Your task to perform on an android device: Open Chrome and go to the settings page Image 0: 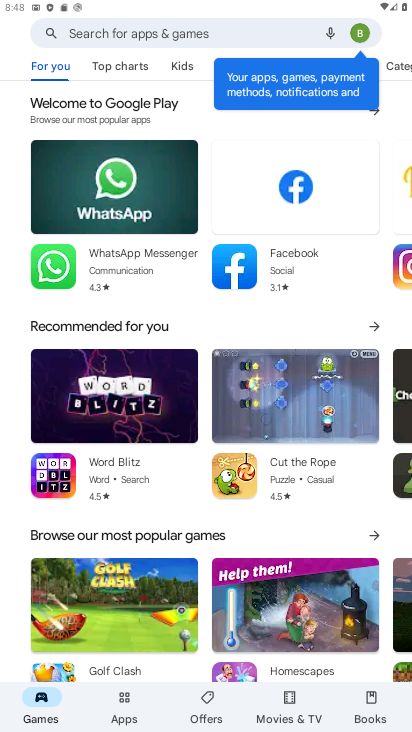
Step 0: press home button
Your task to perform on an android device: Open Chrome and go to the settings page Image 1: 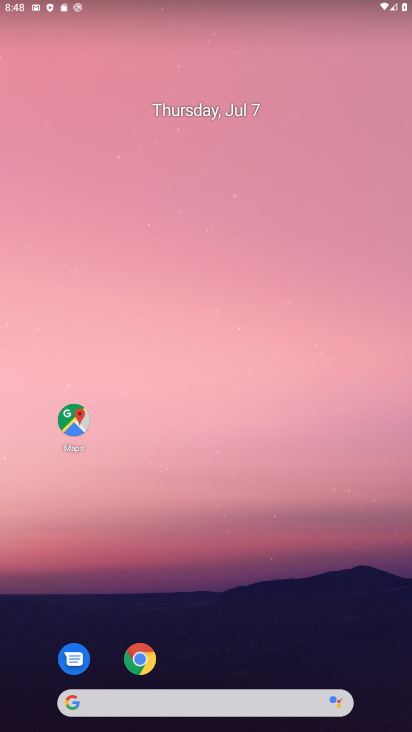
Step 1: click (143, 660)
Your task to perform on an android device: Open Chrome and go to the settings page Image 2: 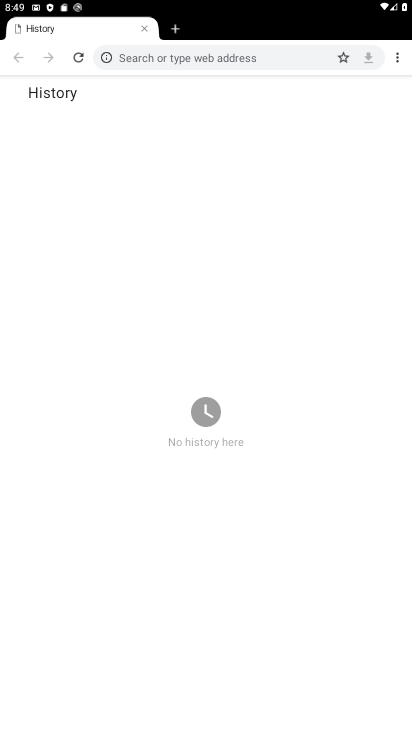
Step 2: click (397, 54)
Your task to perform on an android device: Open Chrome and go to the settings page Image 3: 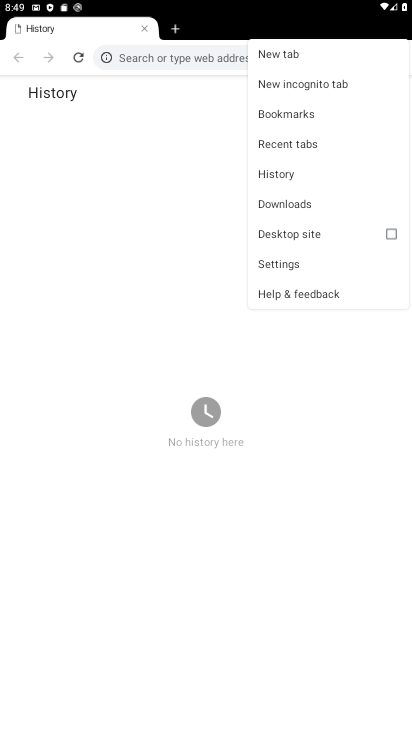
Step 3: click (291, 259)
Your task to perform on an android device: Open Chrome and go to the settings page Image 4: 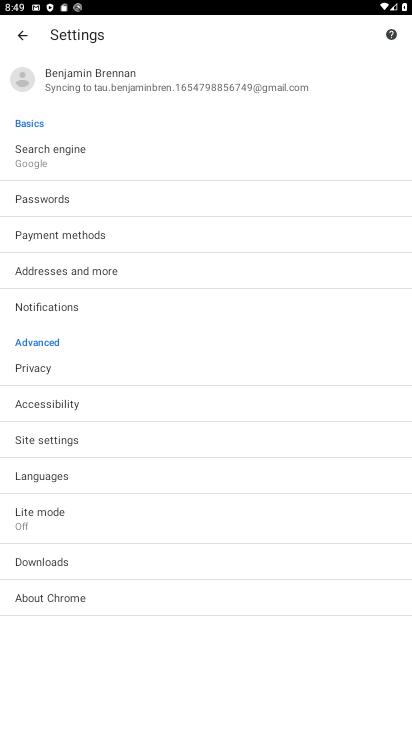
Step 4: task complete